Your task to perform on an android device: Open Chrome and go to settings Image 0: 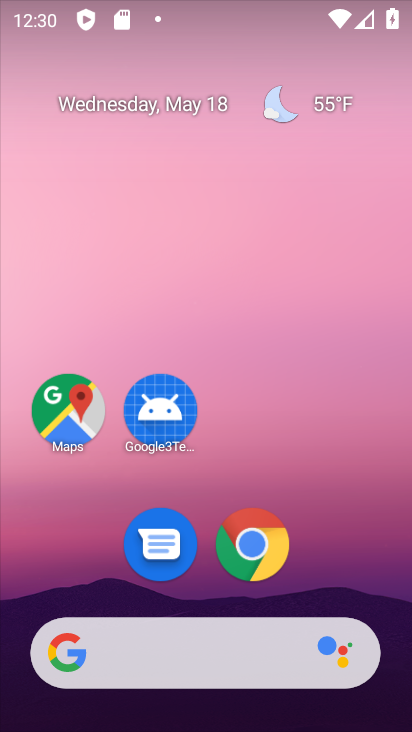
Step 0: click (259, 546)
Your task to perform on an android device: Open Chrome and go to settings Image 1: 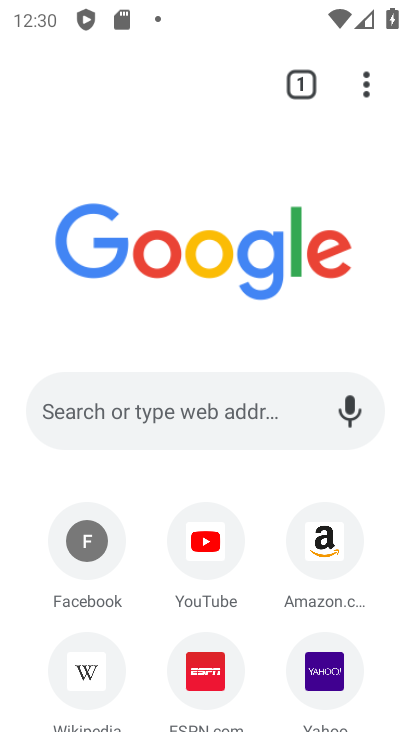
Step 1: click (369, 91)
Your task to perform on an android device: Open Chrome and go to settings Image 2: 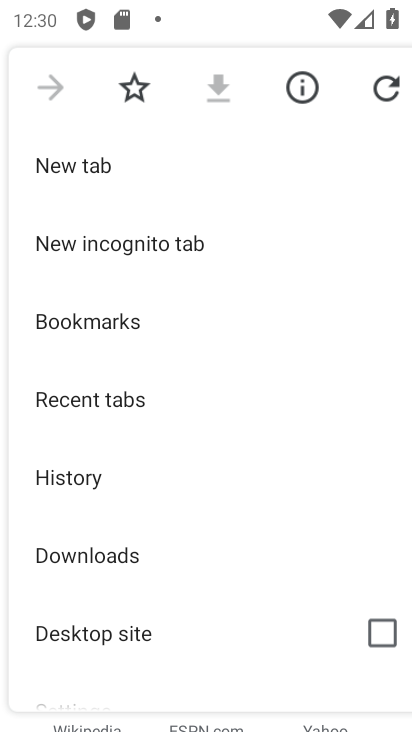
Step 2: drag from (151, 552) to (231, 191)
Your task to perform on an android device: Open Chrome and go to settings Image 3: 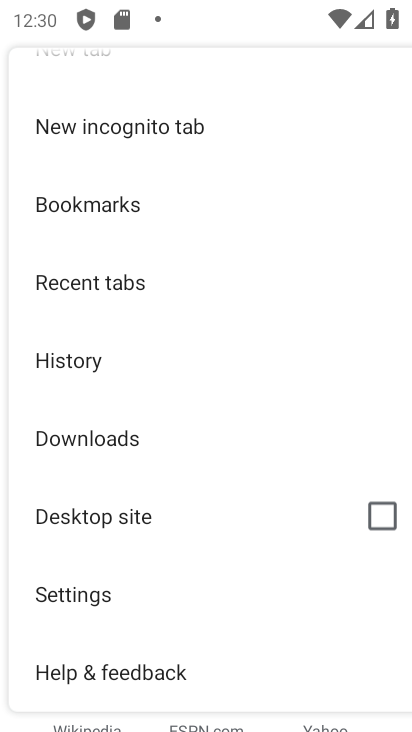
Step 3: click (91, 605)
Your task to perform on an android device: Open Chrome and go to settings Image 4: 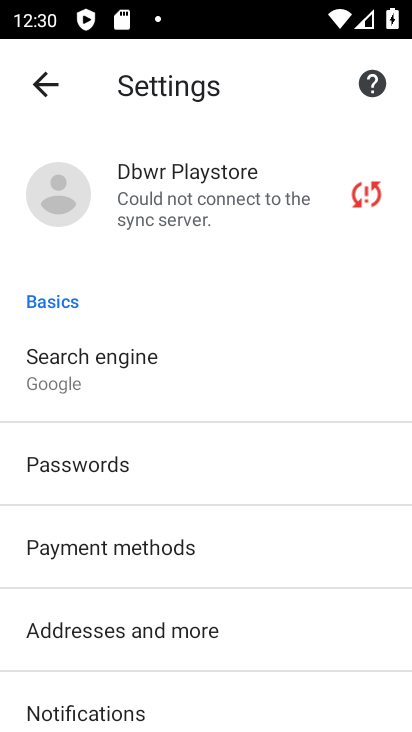
Step 4: task complete